Your task to perform on an android device: Open Youtube and go to "Your channel" Image 0: 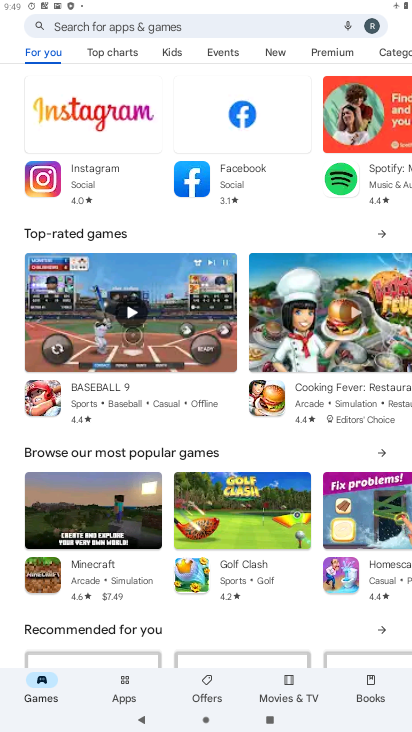
Step 0: drag from (233, 581) to (237, 223)
Your task to perform on an android device: Open Youtube and go to "Your channel" Image 1: 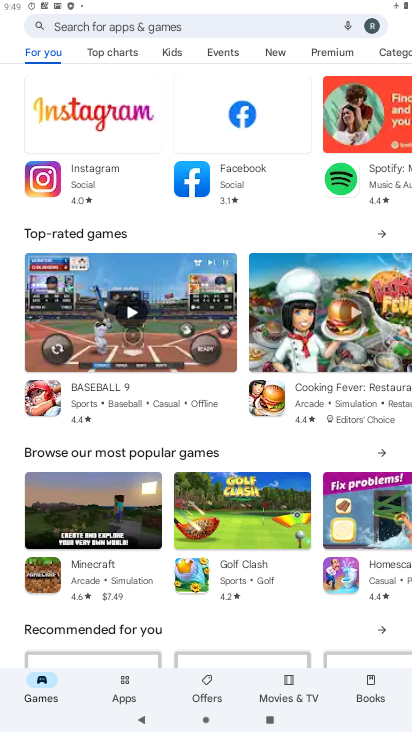
Step 1: drag from (249, 179) to (303, 722)
Your task to perform on an android device: Open Youtube and go to "Your channel" Image 2: 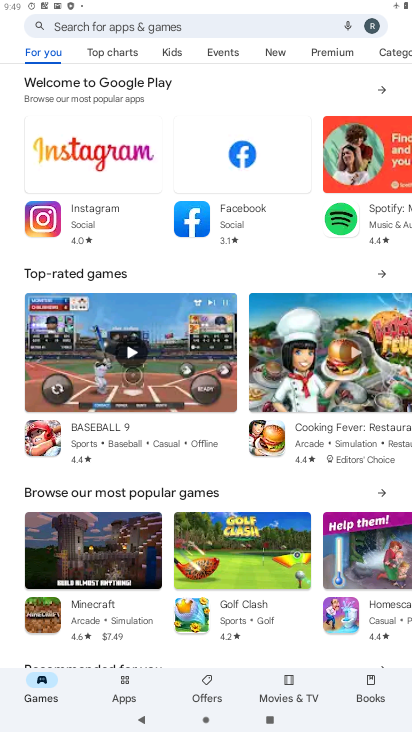
Step 2: press home button
Your task to perform on an android device: Open Youtube and go to "Your channel" Image 3: 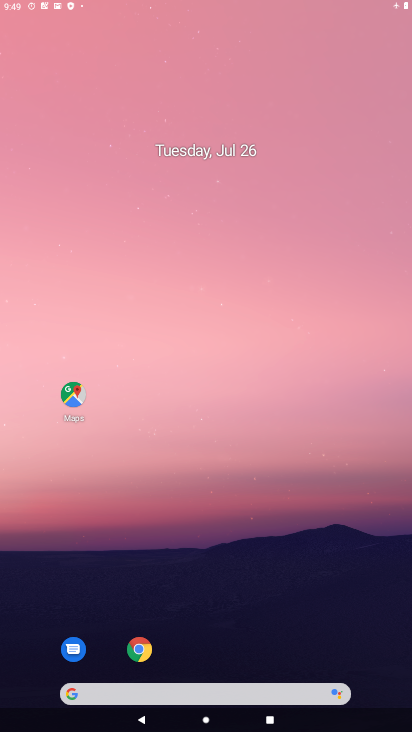
Step 3: drag from (259, 630) to (367, 15)
Your task to perform on an android device: Open Youtube and go to "Your channel" Image 4: 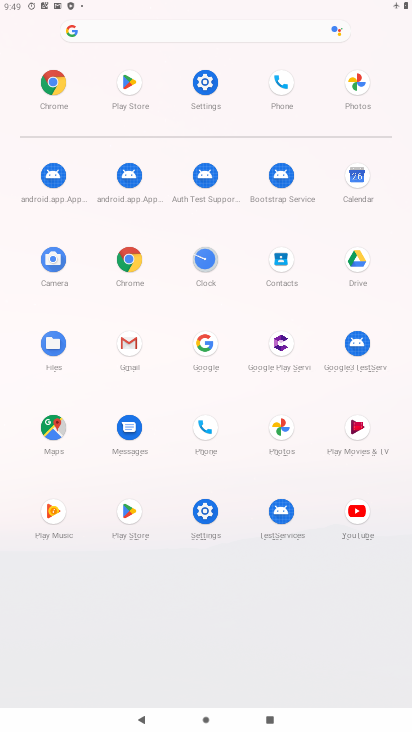
Step 4: click (359, 504)
Your task to perform on an android device: Open Youtube and go to "Your channel" Image 5: 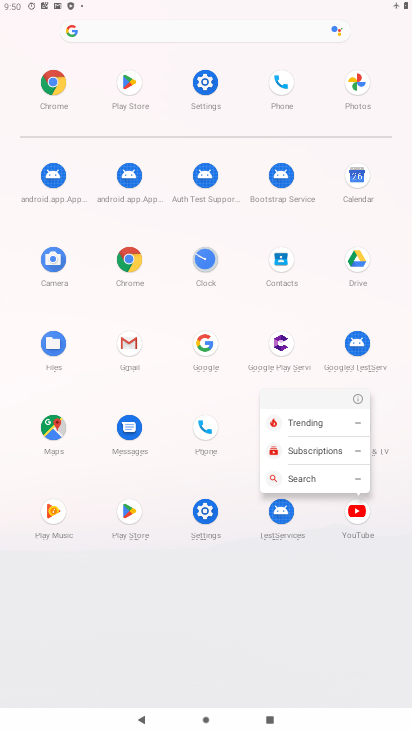
Step 5: click (355, 395)
Your task to perform on an android device: Open Youtube and go to "Your channel" Image 6: 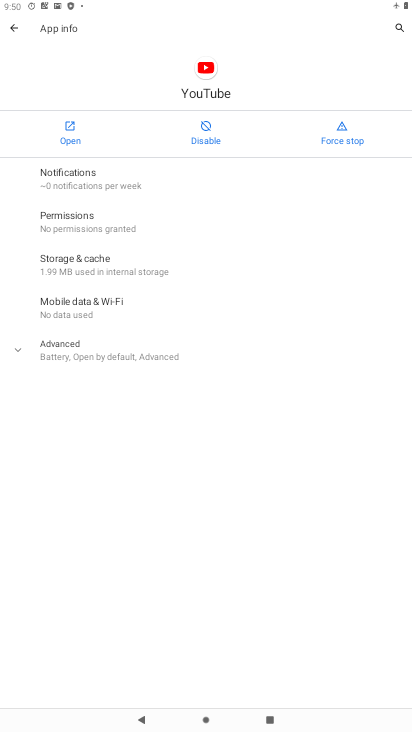
Step 6: click (71, 139)
Your task to perform on an android device: Open Youtube and go to "Your channel" Image 7: 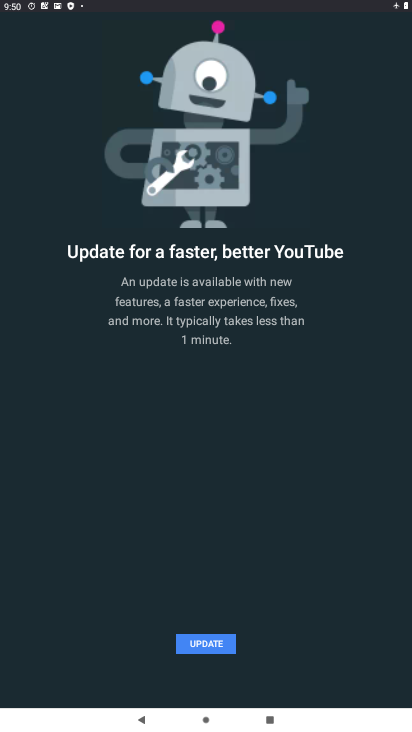
Step 7: task complete